Your task to perform on an android device: Is it going to rain this weekend? Image 0: 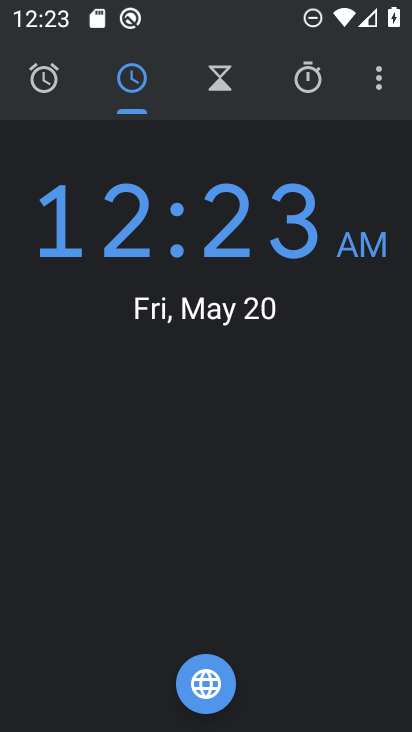
Step 0: press home button
Your task to perform on an android device: Is it going to rain this weekend? Image 1: 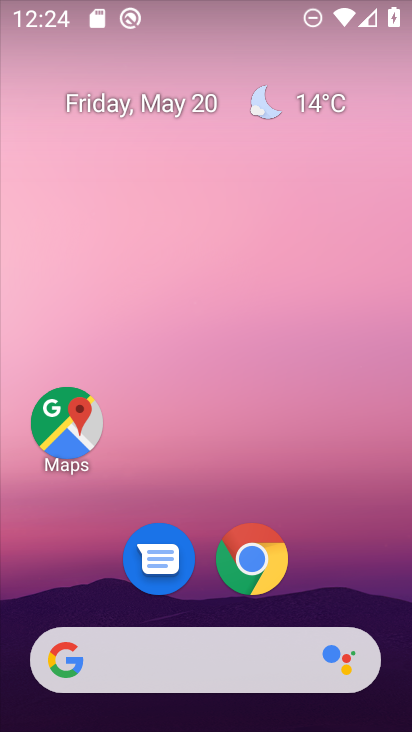
Step 1: click (154, 661)
Your task to perform on an android device: Is it going to rain this weekend? Image 2: 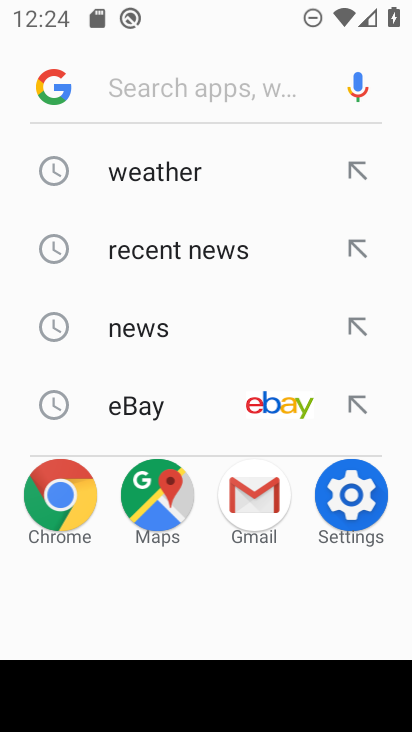
Step 2: click (183, 166)
Your task to perform on an android device: Is it going to rain this weekend? Image 3: 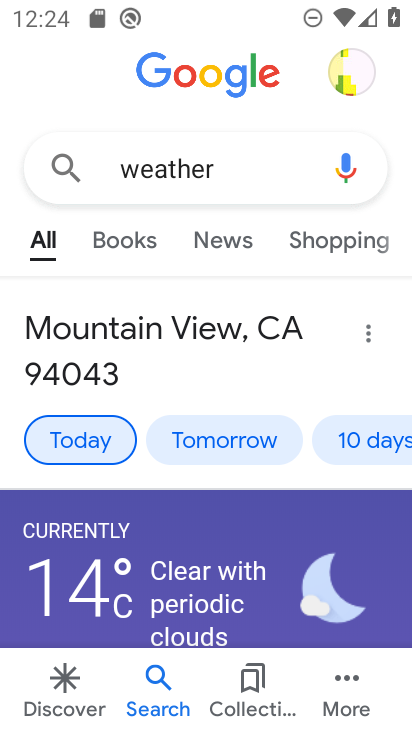
Step 3: click (334, 434)
Your task to perform on an android device: Is it going to rain this weekend? Image 4: 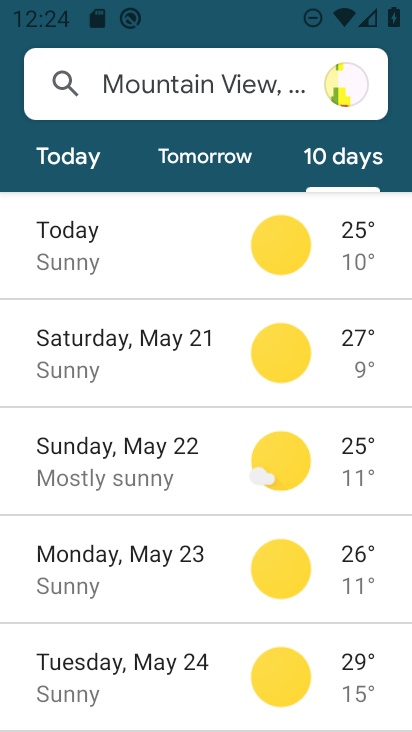
Step 4: task complete